Your task to perform on an android device: turn off improve location accuracy Image 0: 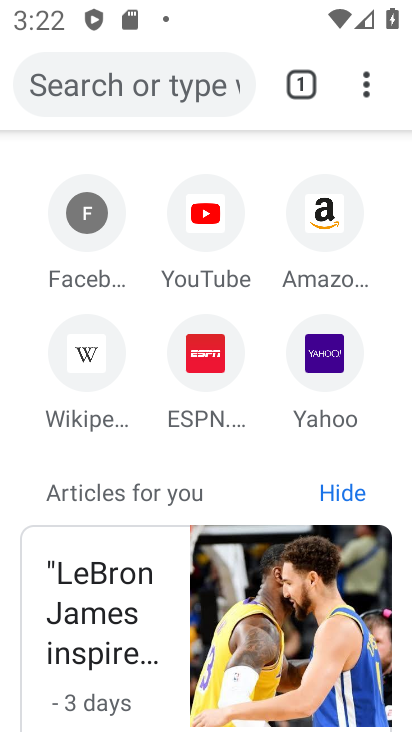
Step 0: press home button
Your task to perform on an android device: turn off improve location accuracy Image 1: 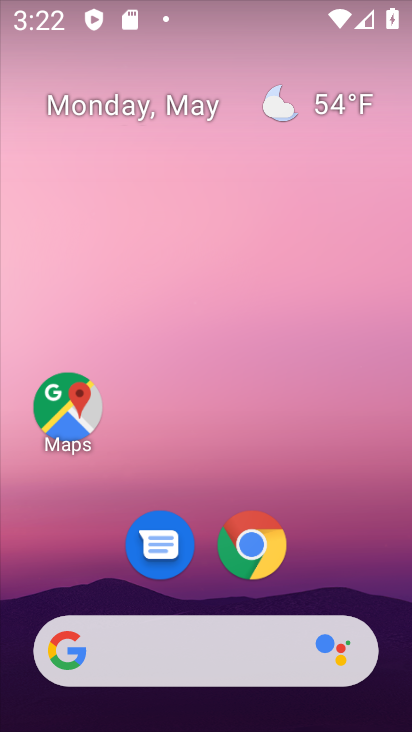
Step 1: drag from (392, 641) to (309, 227)
Your task to perform on an android device: turn off improve location accuracy Image 2: 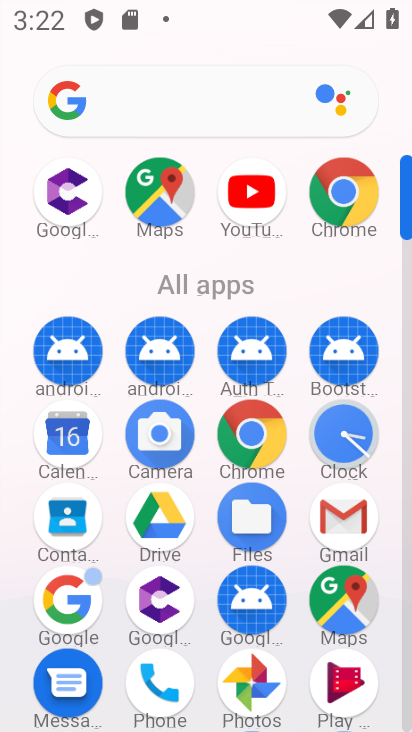
Step 2: click (406, 703)
Your task to perform on an android device: turn off improve location accuracy Image 3: 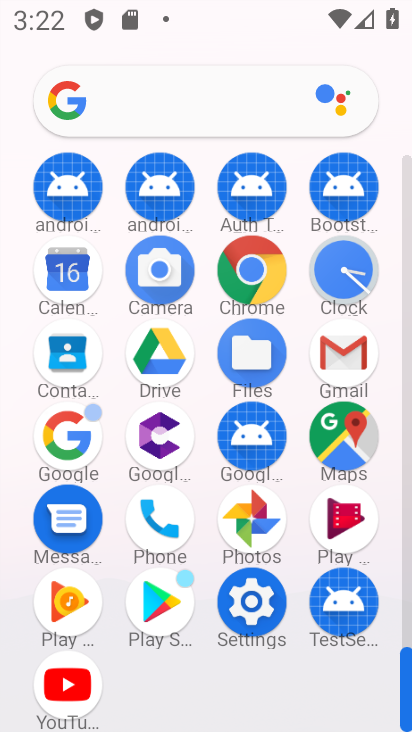
Step 3: click (250, 600)
Your task to perform on an android device: turn off improve location accuracy Image 4: 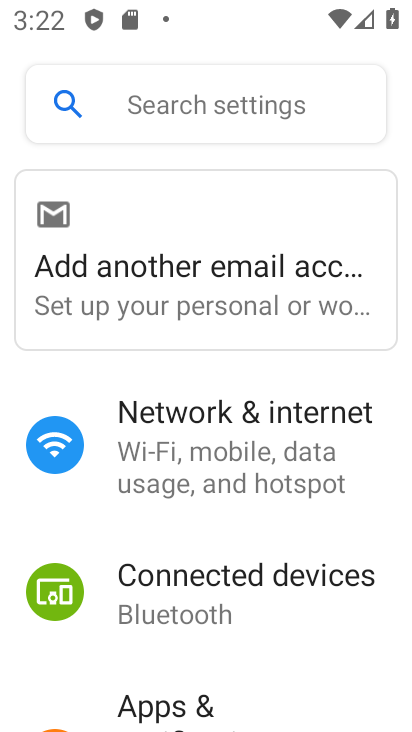
Step 4: drag from (346, 648) to (333, 266)
Your task to perform on an android device: turn off improve location accuracy Image 5: 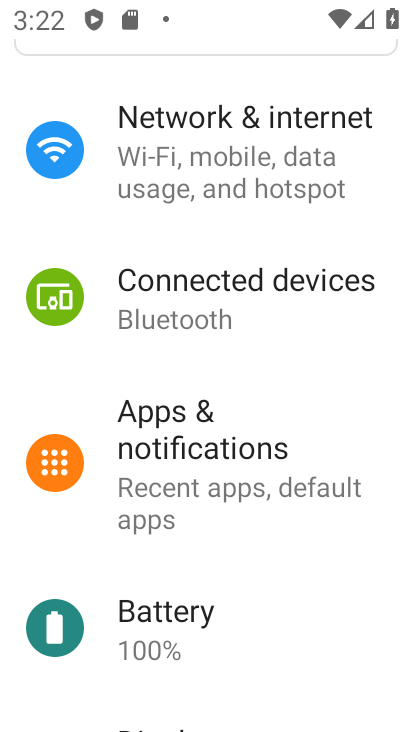
Step 5: drag from (334, 613) to (332, 232)
Your task to perform on an android device: turn off improve location accuracy Image 6: 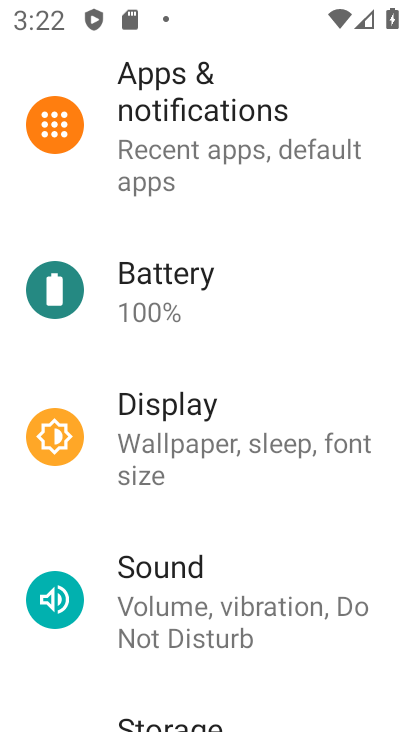
Step 6: drag from (329, 539) to (354, 203)
Your task to perform on an android device: turn off improve location accuracy Image 7: 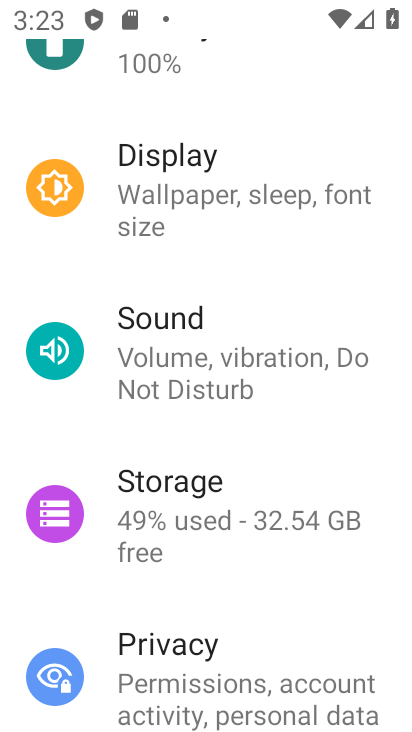
Step 7: drag from (305, 626) to (305, 175)
Your task to perform on an android device: turn off improve location accuracy Image 8: 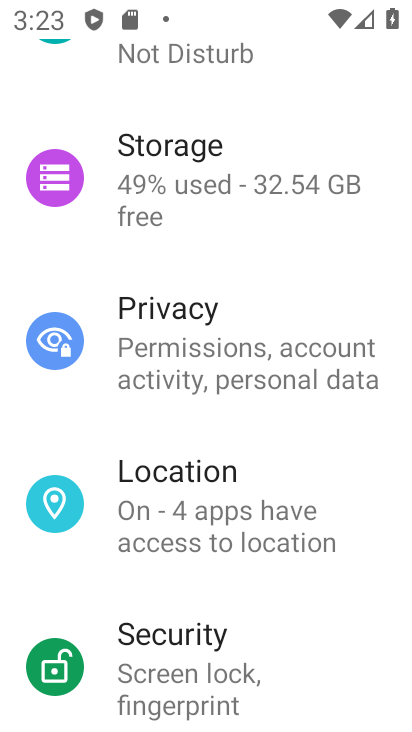
Step 8: click (180, 510)
Your task to perform on an android device: turn off improve location accuracy Image 9: 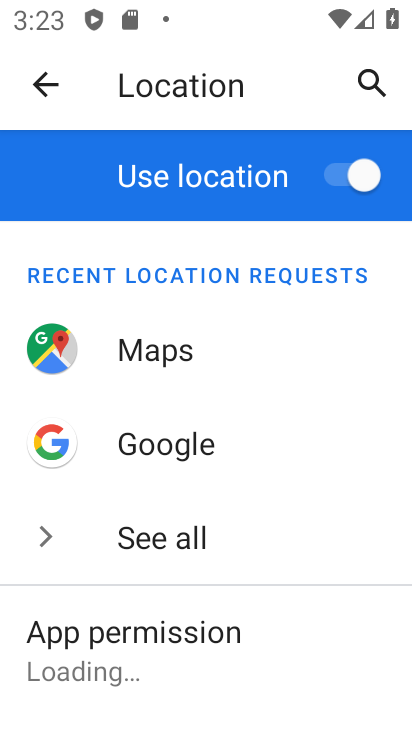
Step 9: drag from (242, 631) to (200, 152)
Your task to perform on an android device: turn off improve location accuracy Image 10: 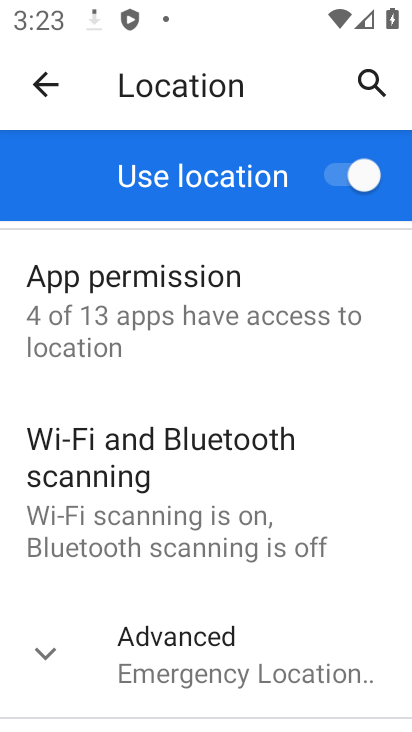
Step 10: click (81, 635)
Your task to perform on an android device: turn off improve location accuracy Image 11: 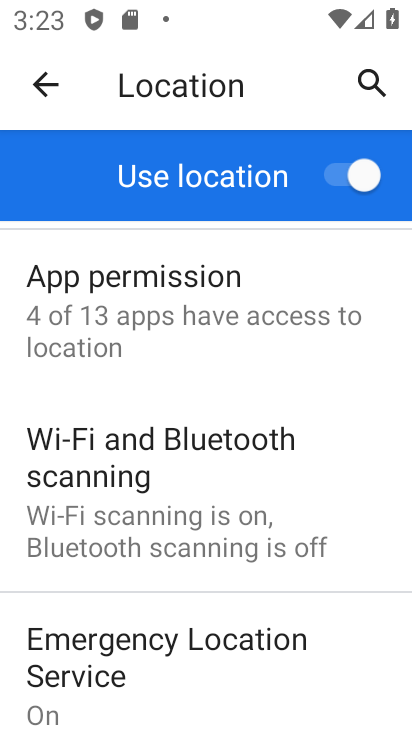
Step 11: drag from (254, 641) to (297, 251)
Your task to perform on an android device: turn off improve location accuracy Image 12: 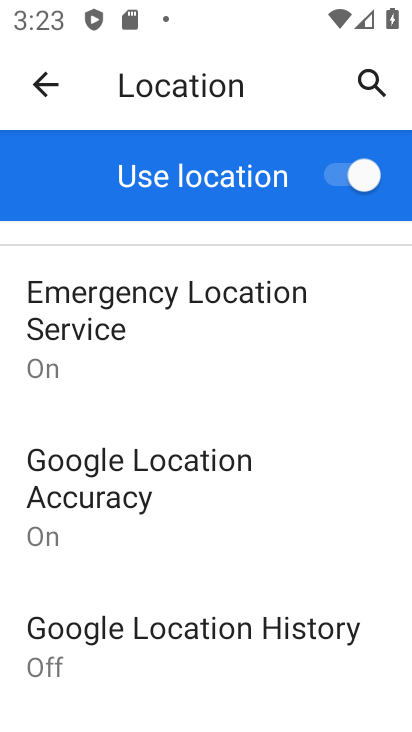
Step 12: click (97, 487)
Your task to perform on an android device: turn off improve location accuracy Image 13: 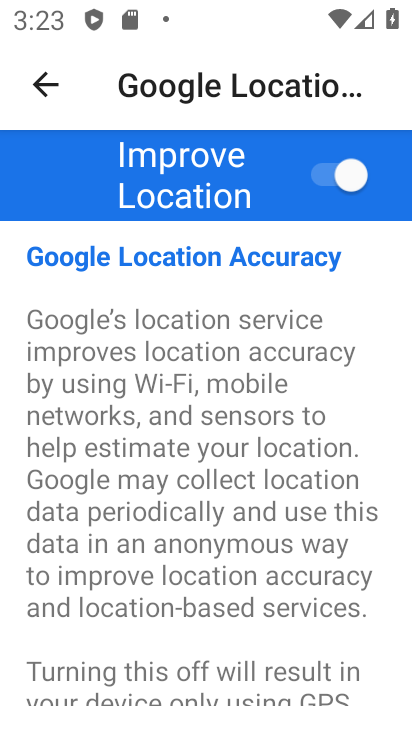
Step 13: click (326, 166)
Your task to perform on an android device: turn off improve location accuracy Image 14: 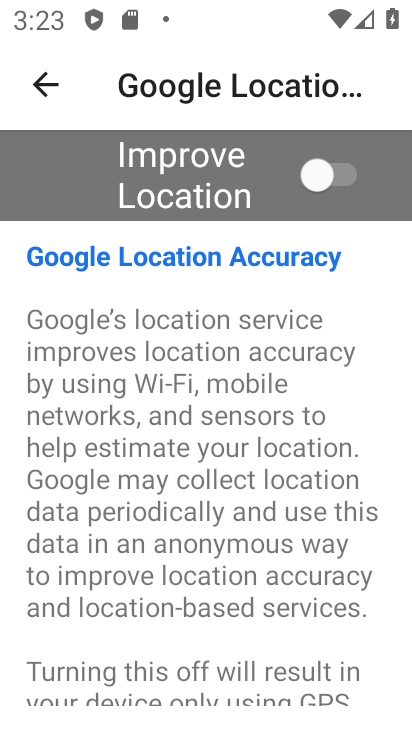
Step 14: task complete